Your task to perform on an android device: check google app version Image 0: 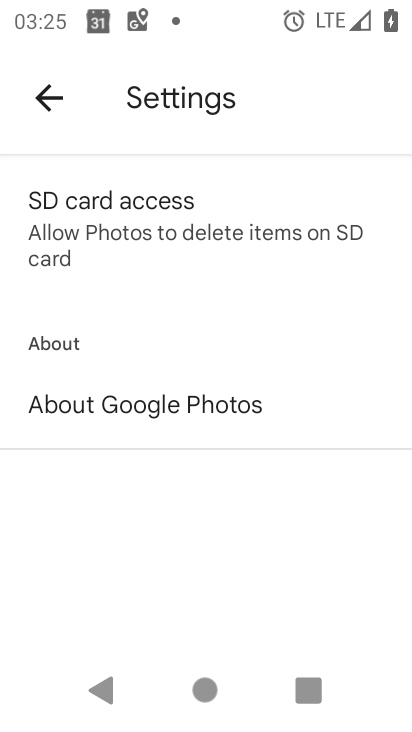
Step 0: click (55, 95)
Your task to perform on an android device: check google app version Image 1: 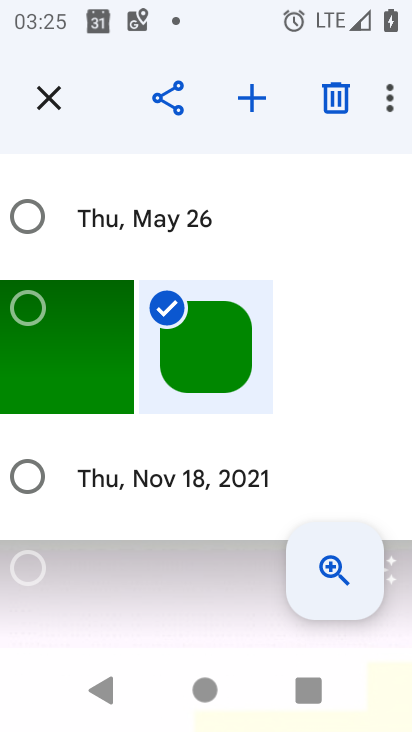
Step 1: click (45, 99)
Your task to perform on an android device: check google app version Image 2: 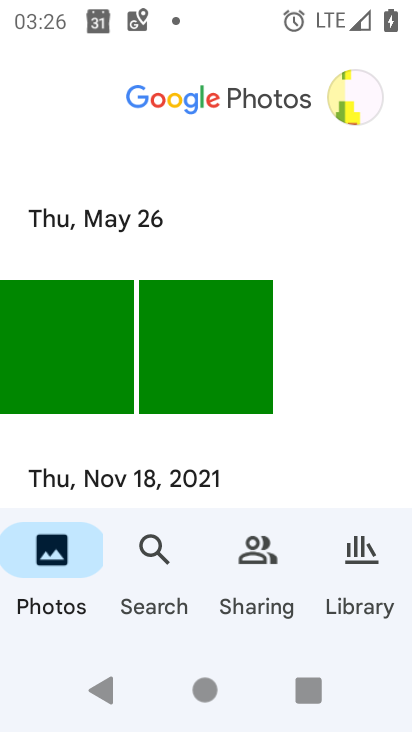
Step 2: press home button
Your task to perform on an android device: check google app version Image 3: 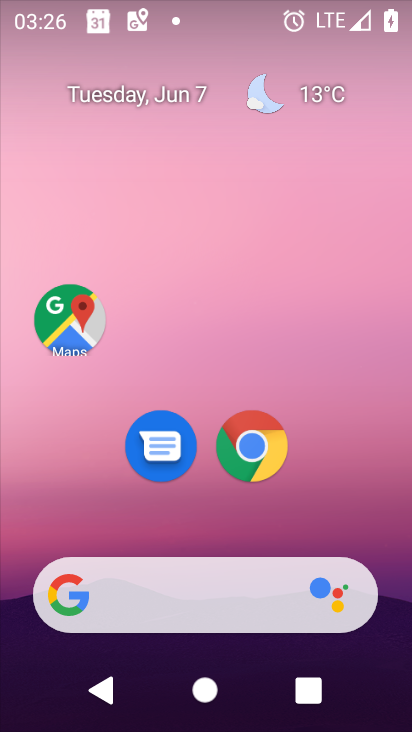
Step 3: drag from (156, 626) to (235, 55)
Your task to perform on an android device: check google app version Image 4: 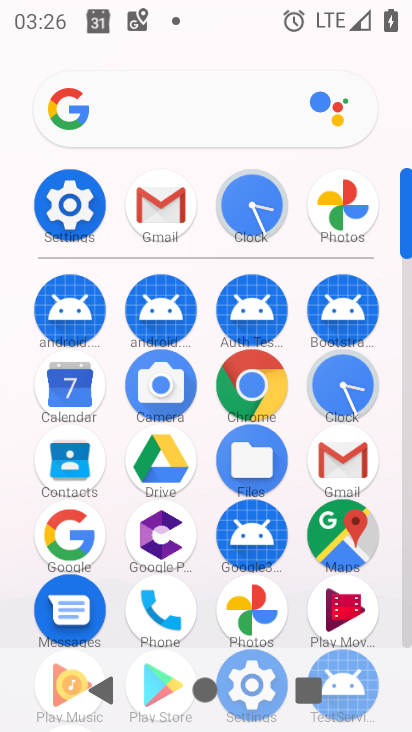
Step 4: click (70, 549)
Your task to perform on an android device: check google app version Image 5: 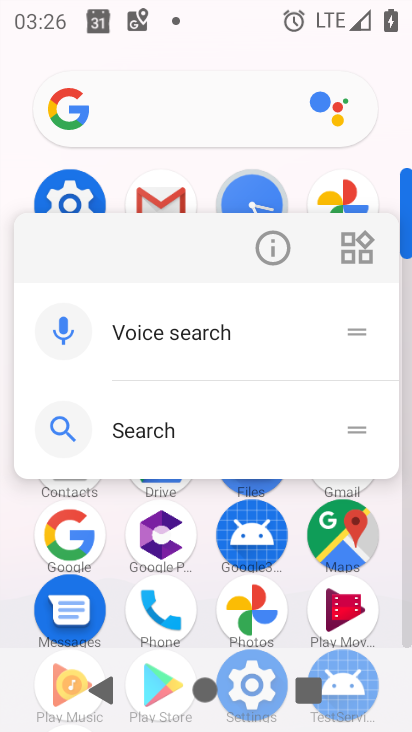
Step 5: click (281, 234)
Your task to perform on an android device: check google app version Image 6: 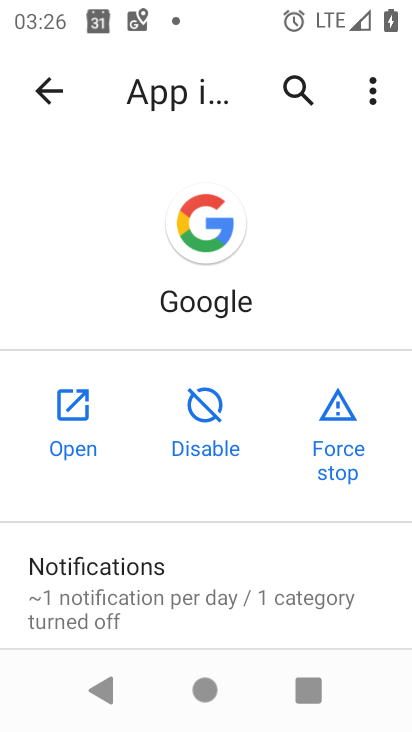
Step 6: drag from (222, 552) to (264, 19)
Your task to perform on an android device: check google app version Image 7: 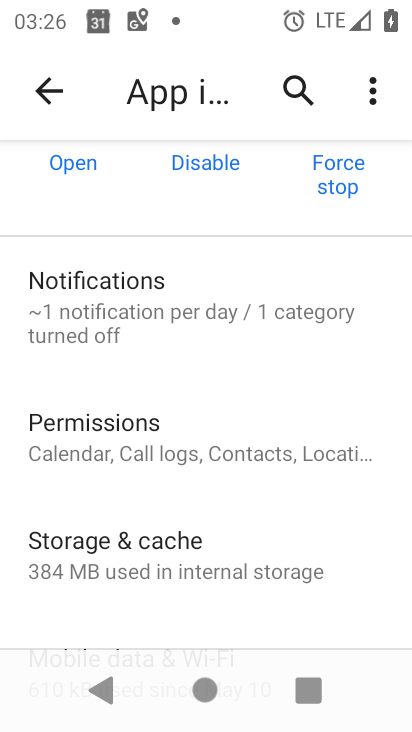
Step 7: drag from (262, 520) to (318, 39)
Your task to perform on an android device: check google app version Image 8: 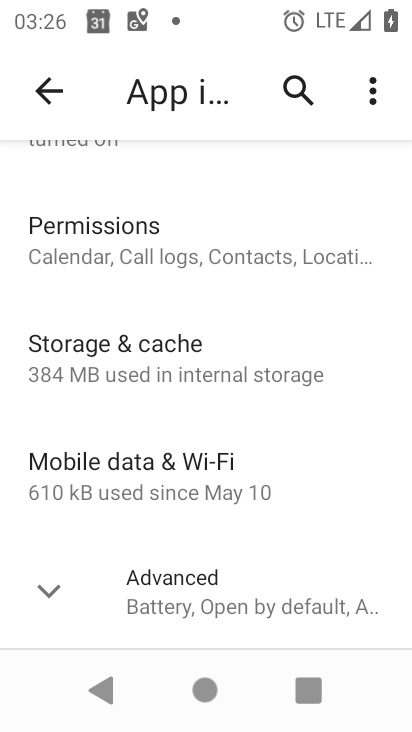
Step 8: drag from (297, 491) to (352, 38)
Your task to perform on an android device: check google app version Image 9: 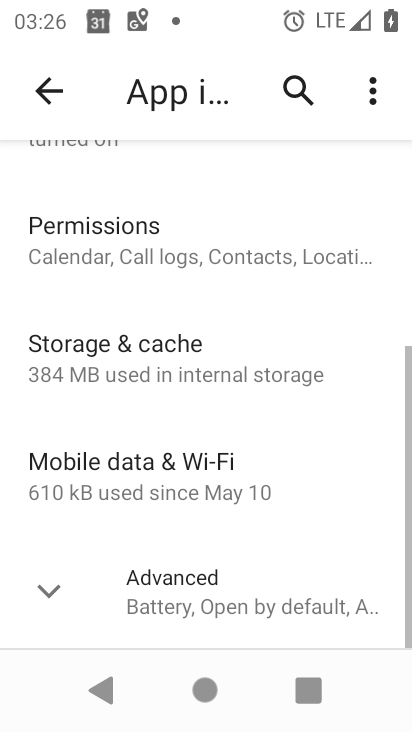
Step 9: click (222, 584)
Your task to perform on an android device: check google app version Image 10: 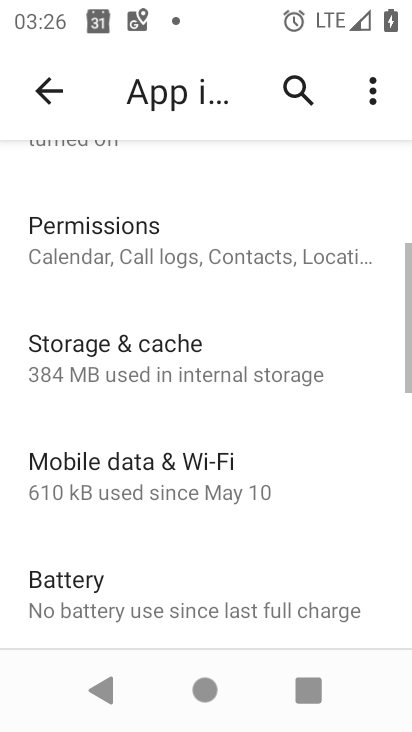
Step 10: task complete